Your task to perform on an android device: create a new album in the google photos Image 0: 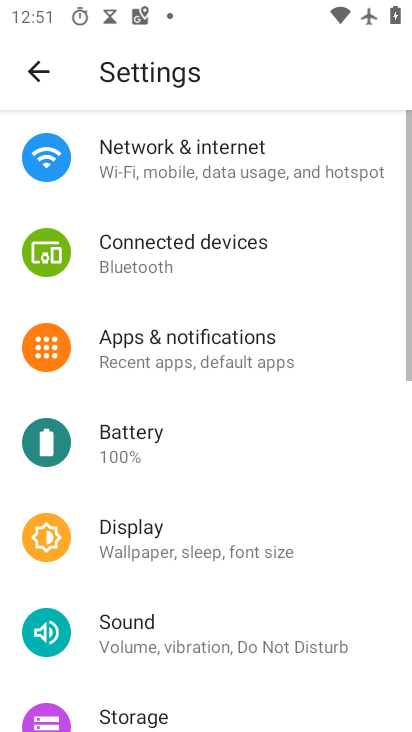
Step 0: press home button
Your task to perform on an android device: create a new album in the google photos Image 1: 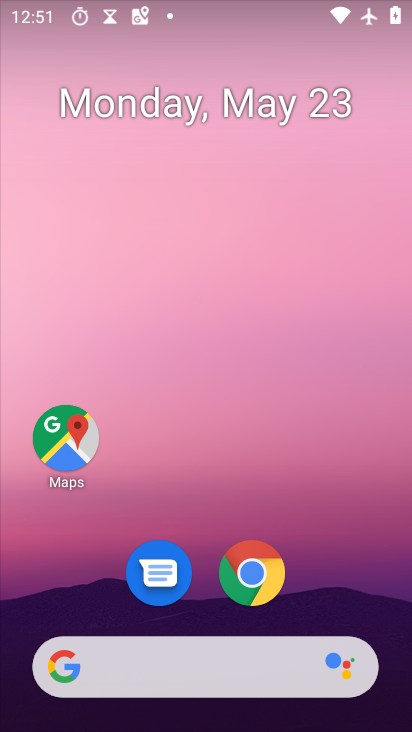
Step 1: drag from (186, 653) to (312, 177)
Your task to perform on an android device: create a new album in the google photos Image 2: 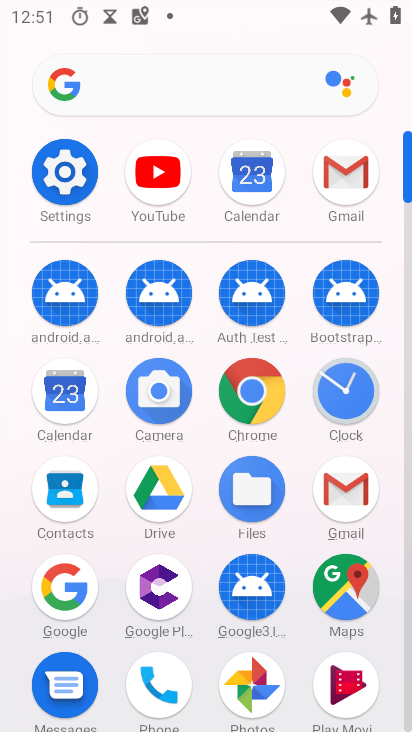
Step 2: click (243, 674)
Your task to perform on an android device: create a new album in the google photos Image 3: 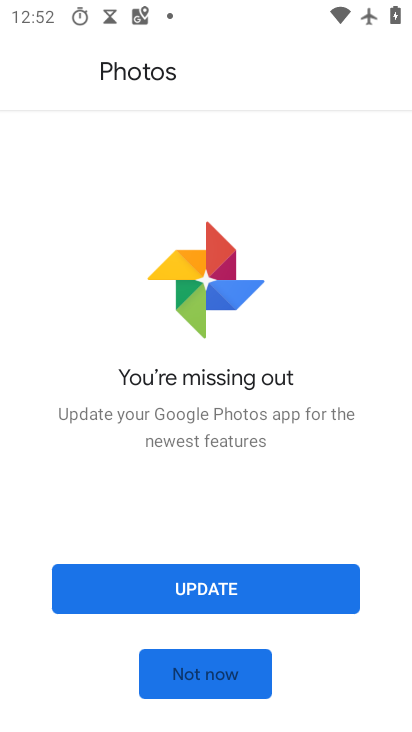
Step 3: click (221, 594)
Your task to perform on an android device: create a new album in the google photos Image 4: 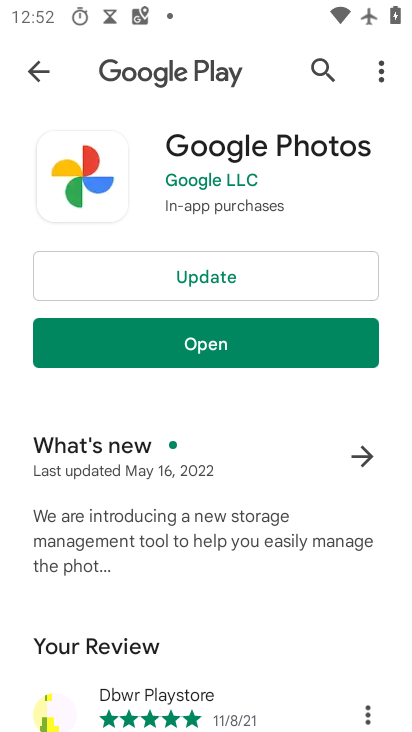
Step 4: click (224, 279)
Your task to perform on an android device: create a new album in the google photos Image 5: 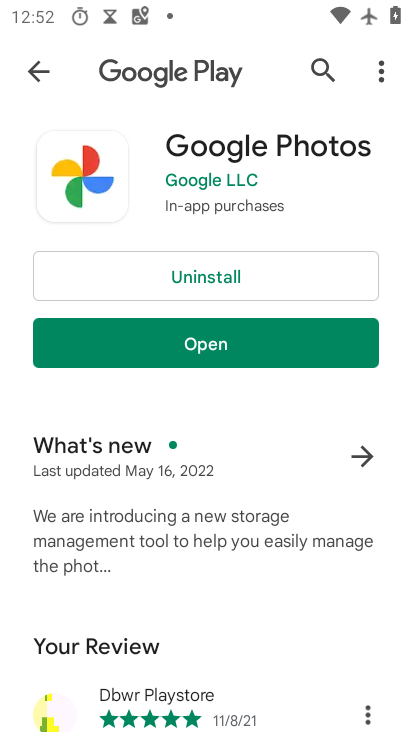
Step 5: click (232, 353)
Your task to perform on an android device: create a new album in the google photos Image 6: 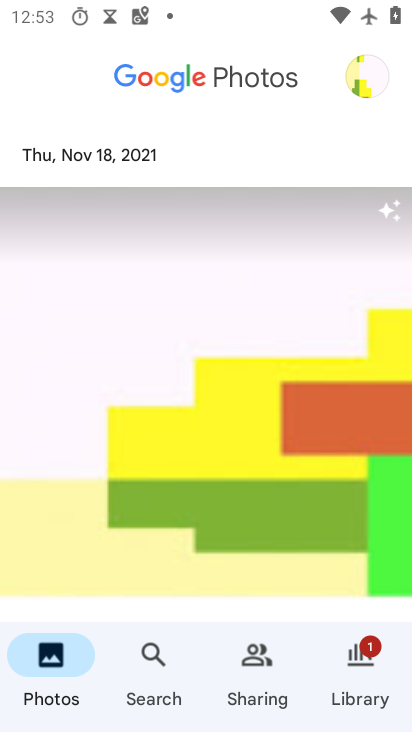
Step 6: click (344, 680)
Your task to perform on an android device: create a new album in the google photos Image 7: 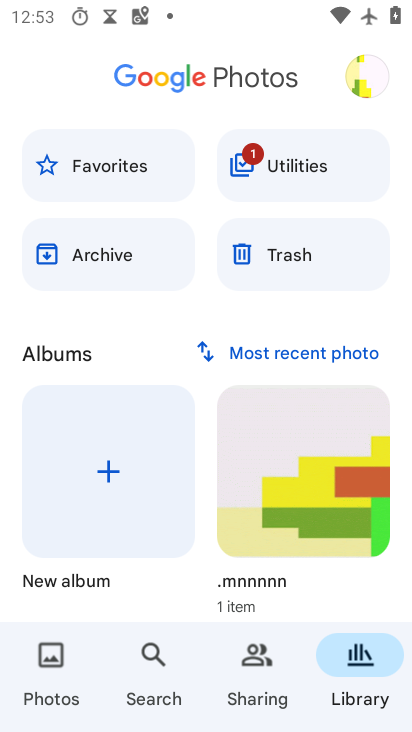
Step 7: click (116, 471)
Your task to perform on an android device: create a new album in the google photos Image 8: 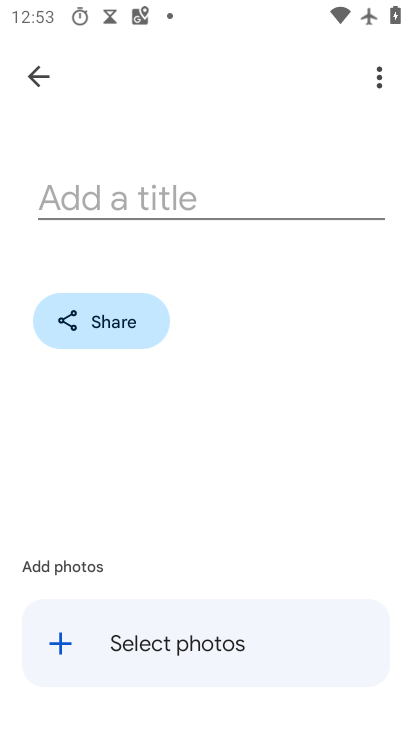
Step 8: drag from (160, 563) to (300, 191)
Your task to perform on an android device: create a new album in the google photos Image 9: 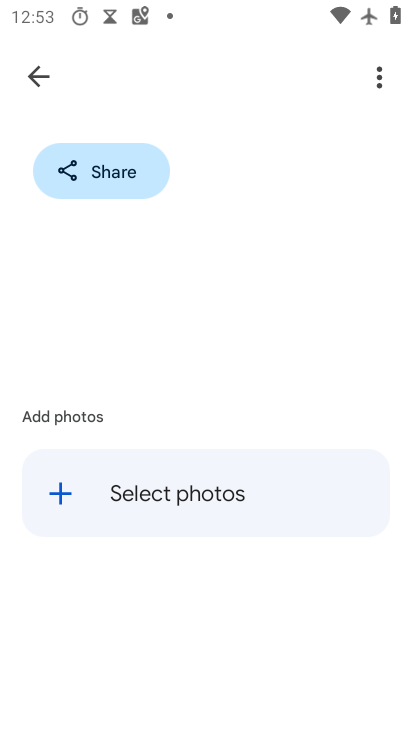
Step 9: click (191, 492)
Your task to perform on an android device: create a new album in the google photos Image 10: 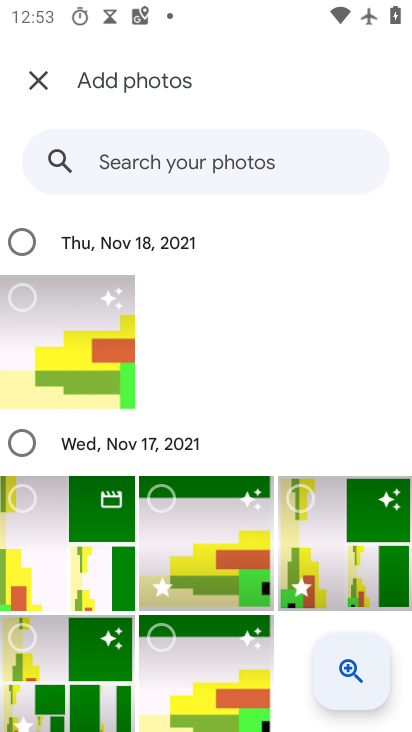
Step 10: click (66, 367)
Your task to perform on an android device: create a new album in the google photos Image 11: 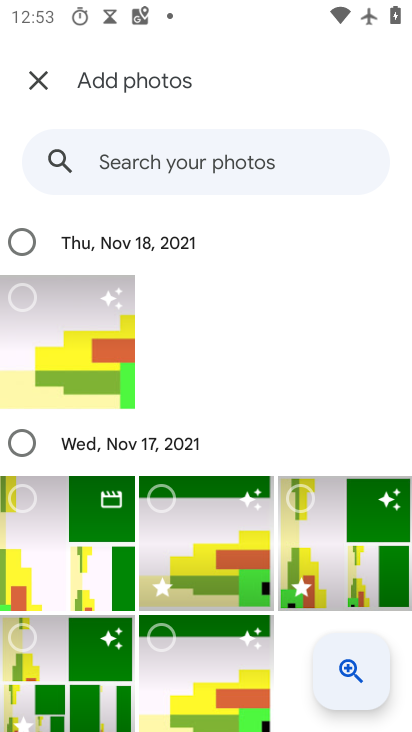
Step 11: click (55, 565)
Your task to perform on an android device: create a new album in the google photos Image 12: 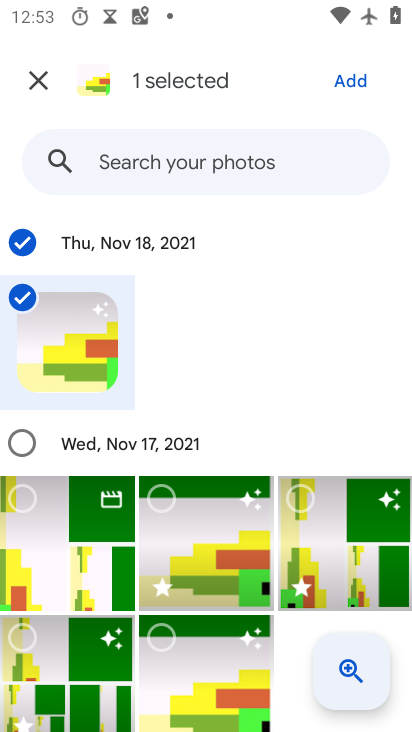
Step 12: click (177, 562)
Your task to perform on an android device: create a new album in the google photos Image 13: 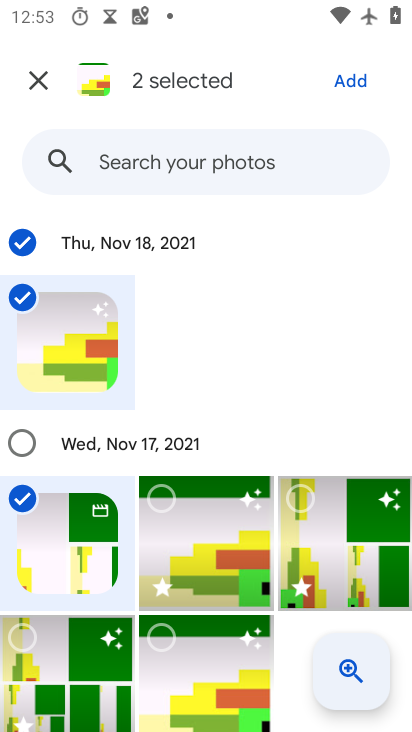
Step 13: click (301, 565)
Your task to perform on an android device: create a new album in the google photos Image 14: 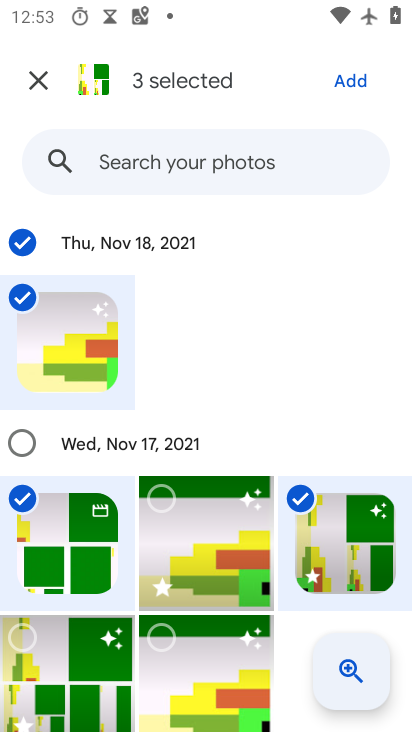
Step 14: click (221, 568)
Your task to perform on an android device: create a new album in the google photos Image 15: 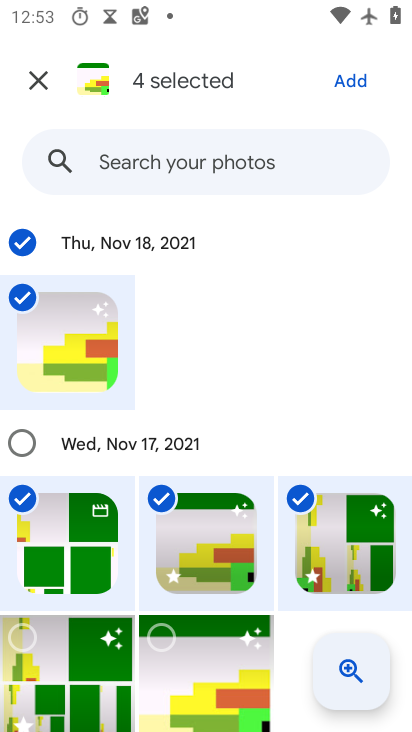
Step 15: click (356, 82)
Your task to perform on an android device: create a new album in the google photos Image 16: 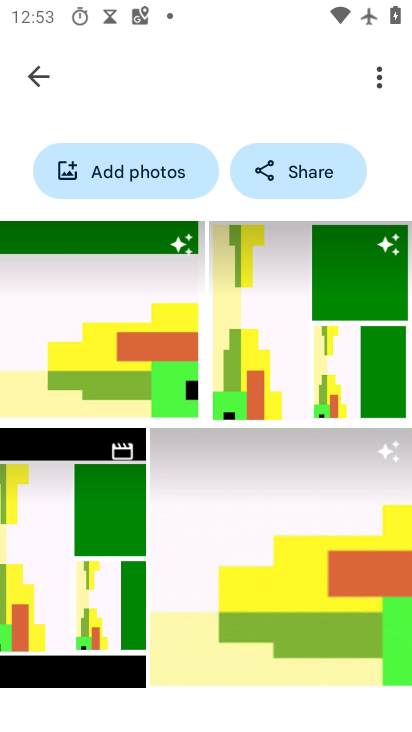
Step 16: task complete